Your task to perform on an android device: open app "The Home Depot" (install if not already installed) and enter user name: "taproot@icloud.com" and password: "executions" Image 0: 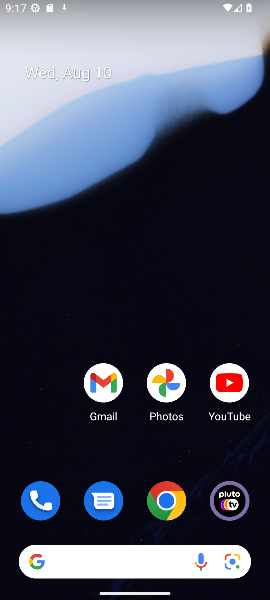
Step 0: drag from (199, 531) to (159, 102)
Your task to perform on an android device: open app "The Home Depot" (install if not already installed) and enter user name: "taproot@icloud.com" and password: "executions" Image 1: 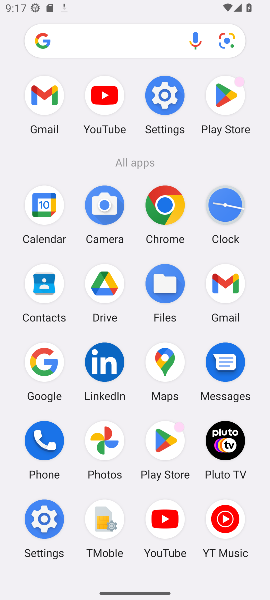
Step 1: click (167, 442)
Your task to perform on an android device: open app "The Home Depot" (install if not already installed) and enter user name: "taproot@icloud.com" and password: "executions" Image 2: 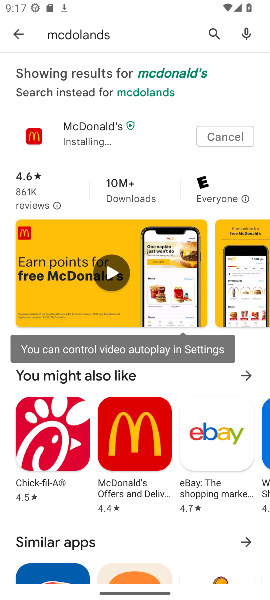
Step 2: click (206, 44)
Your task to perform on an android device: open app "The Home Depot" (install if not already installed) and enter user name: "taproot@icloud.com" and password: "executions" Image 3: 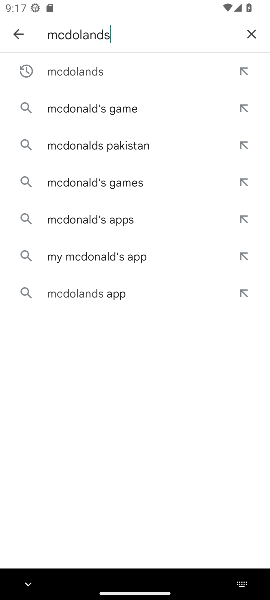
Step 3: click (256, 38)
Your task to perform on an android device: open app "The Home Depot" (install if not already installed) and enter user name: "taproot@icloud.com" and password: "executions" Image 4: 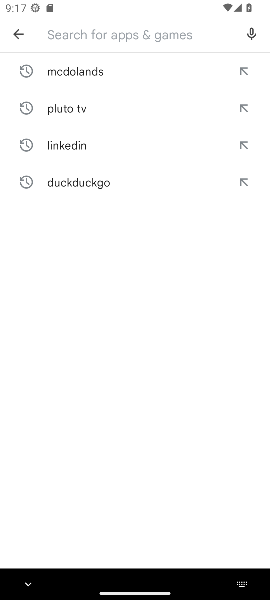
Step 4: type "the home depot"
Your task to perform on an android device: open app "The Home Depot" (install if not already installed) and enter user name: "taproot@icloud.com" and password: "executions" Image 5: 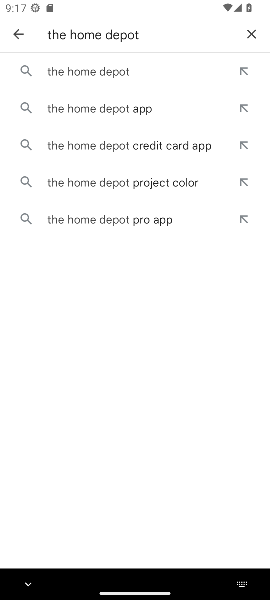
Step 5: click (148, 70)
Your task to perform on an android device: open app "The Home Depot" (install if not already installed) and enter user name: "taproot@icloud.com" and password: "executions" Image 6: 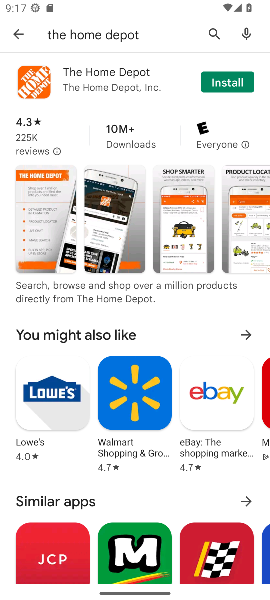
Step 6: click (237, 94)
Your task to perform on an android device: open app "The Home Depot" (install if not already installed) and enter user name: "taproot@icloud.com" and password: "executions" Image 7: 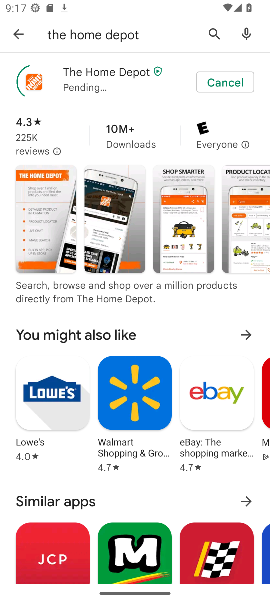
Step 7: task complete